Your task to perform on an android device: Open privacy settings Image 0: 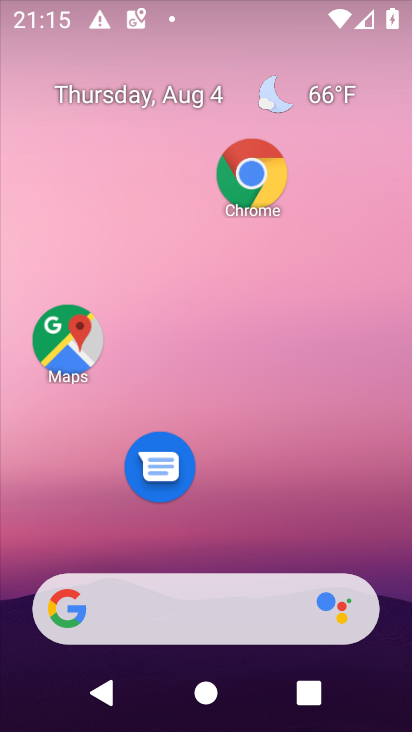
Step 0: press home button
Your task to perform on an android device: Open privacy settings Image 1: 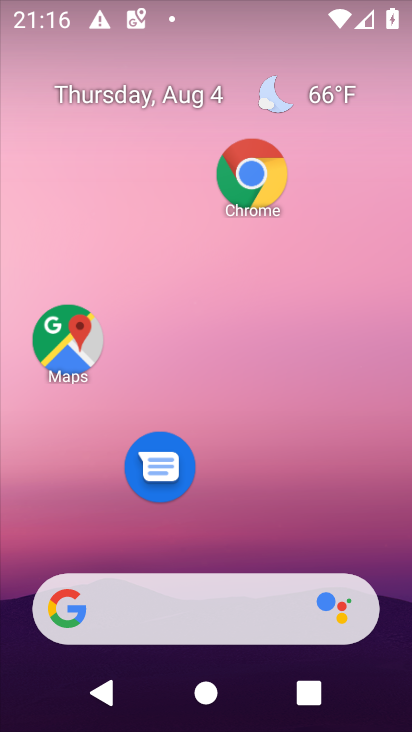
Step 1: drag from (202, 536) to (408, 185)
Your task to perform on an android device: Open privacy settings Image 2: 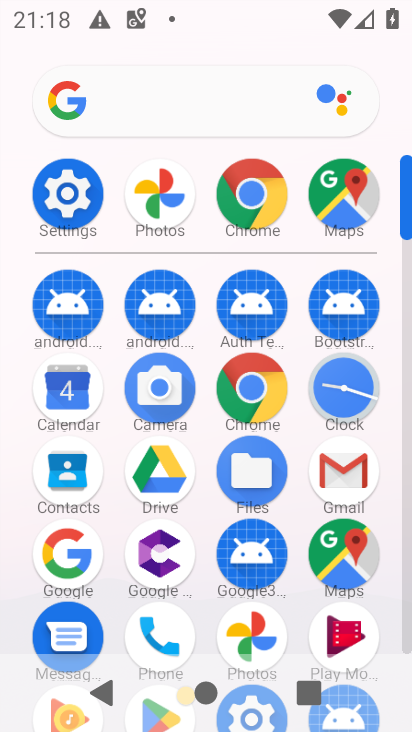
Step 2: click (59, 214)
Your task to perform on an android device: Open privacy settings Image 3: 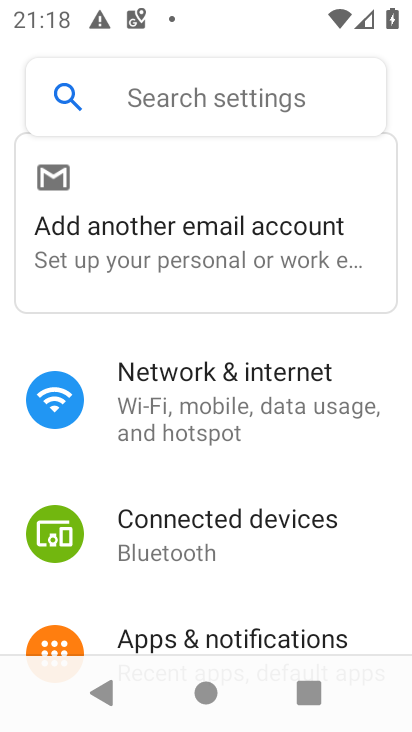
Step 3: drag from (132, 393) to (66, 49)
Your task to perform on an android device: Open privacy settings Image 4: 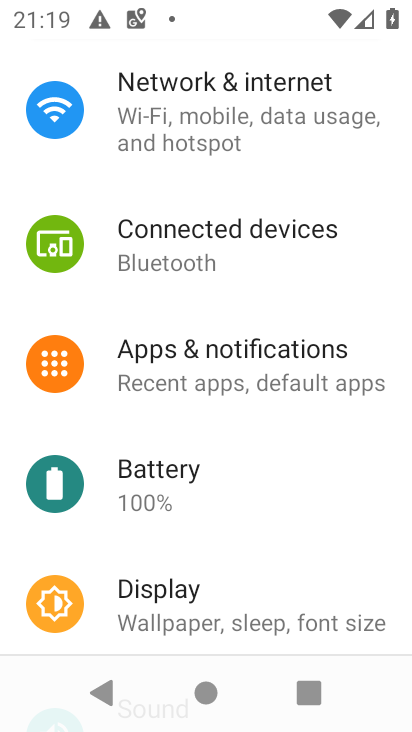
Step 4: drag from (170, 434) to (2, 191)
Your task to perform on an android device: Open privacy settings Image 5: 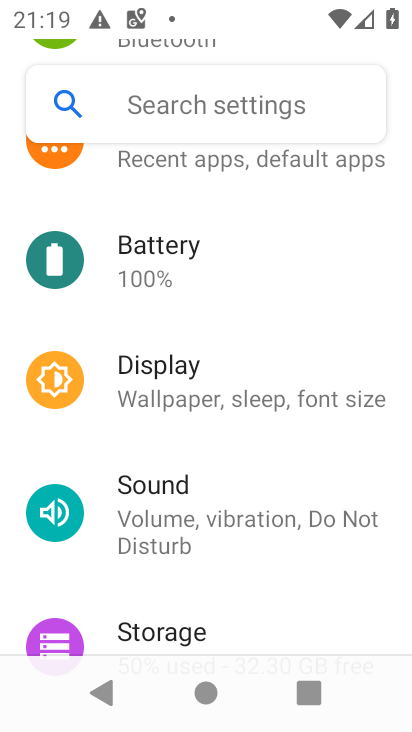
Step 5: drag from (128, 548) to (186, 2)
Your task to perform on an android device: Open privacy settings Image 6: 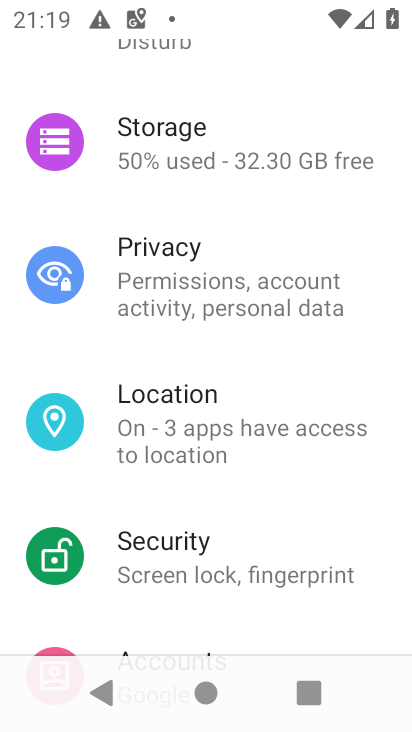
Step 6: click (276, 259)
Your task to perform on an android device: Open privacy settings Image 7: 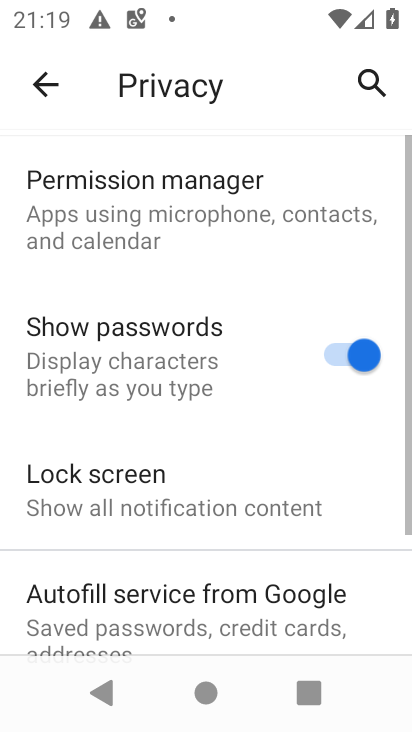
Step 7: task complete